Your task to perform on an android device: What's the weather today? Image 0: 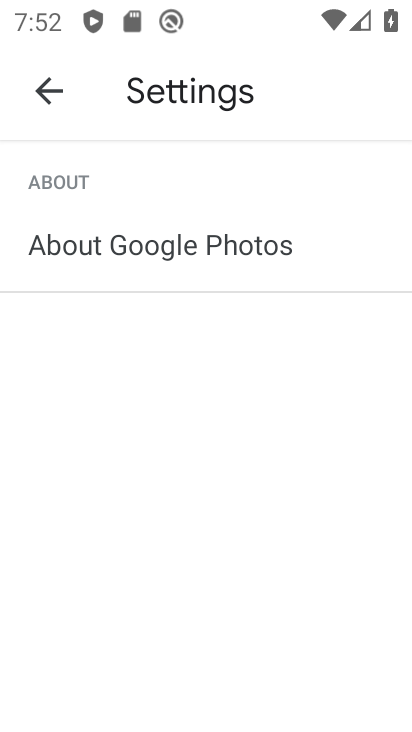
Step 0: press home button
Your task to perform on an android device: What's the weather today? Image 1: 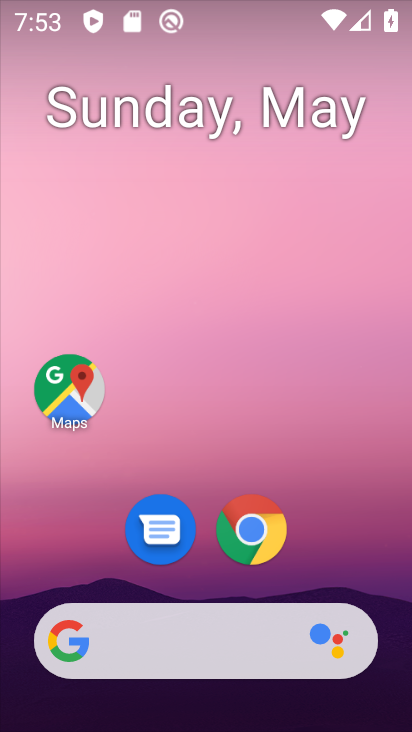
Step 1: click (212, 650)
Your task to perform on an android device: What's the weather today? Image 2: 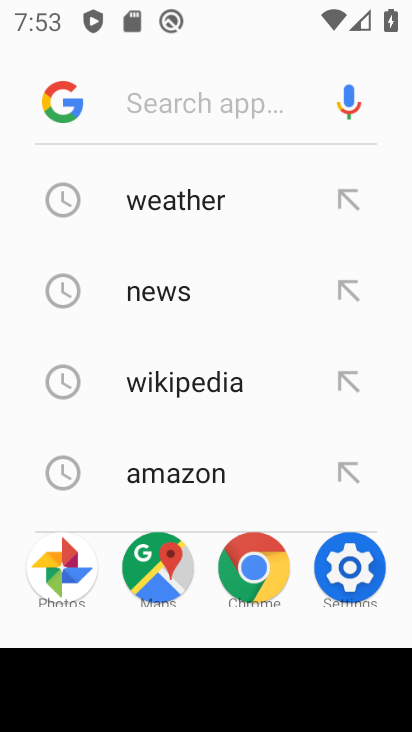
Step 2: click (201, 187)
Your task to perform on an android device: What's the weather today? Image 3: 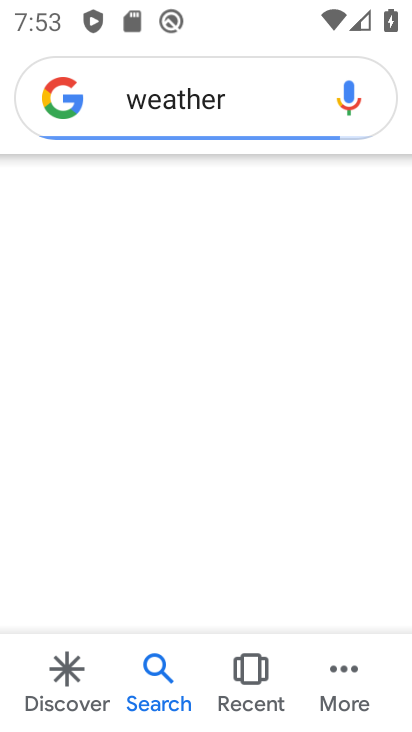
Step 3: task complete